Your task to perform on an android device: open chrome privacy settings Image 0: 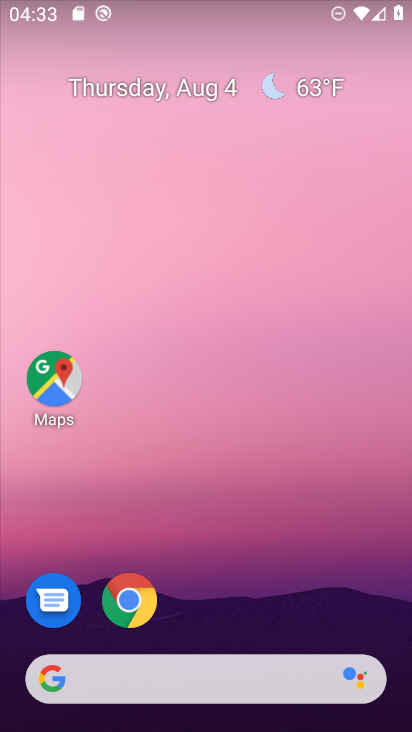
Step 0: drag from (284, 521) to (296, 83)
Your task to perform on an android device: open chrome privacy settings Image 1: 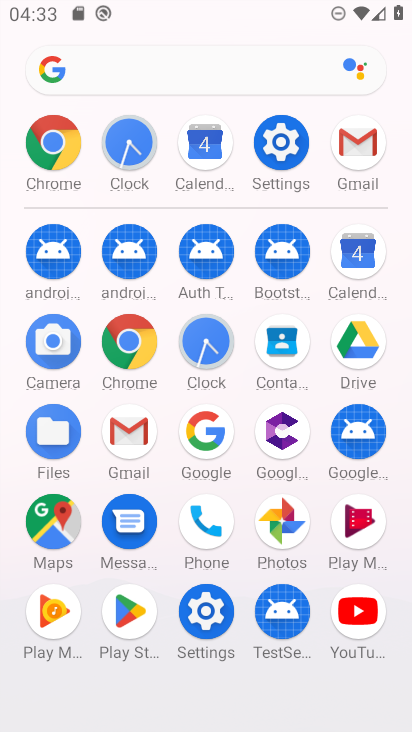
Step 1: click (126, 336)
Your task to perform on an android device: open chrome privacy settings Image 2: 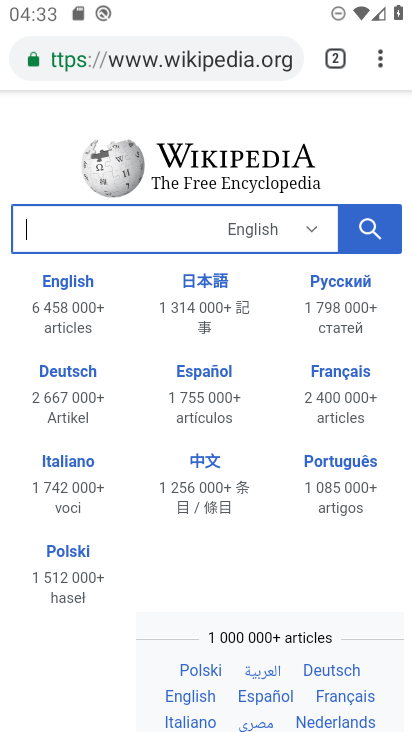
Step 2: drag from (389, 57) to (222, 638)
Your task to perform on an android device: open chrome privacy settings Image 3: 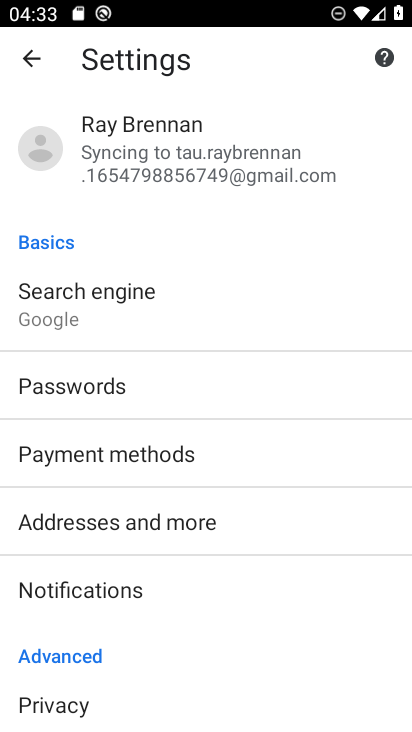
Step 3: drag from (255, 516) to (277, 180)
Your task to perform on an android device: open chrome privacy settings Image 4: 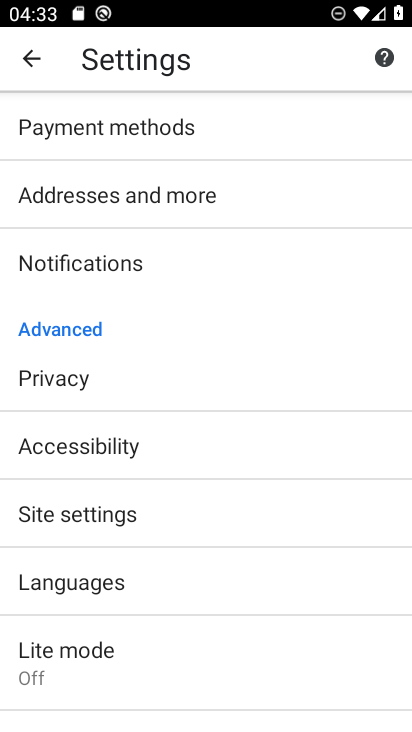
Step 4: click (88, 374)
Your task to perform on an android device: open chrome privacy settings Image 5: 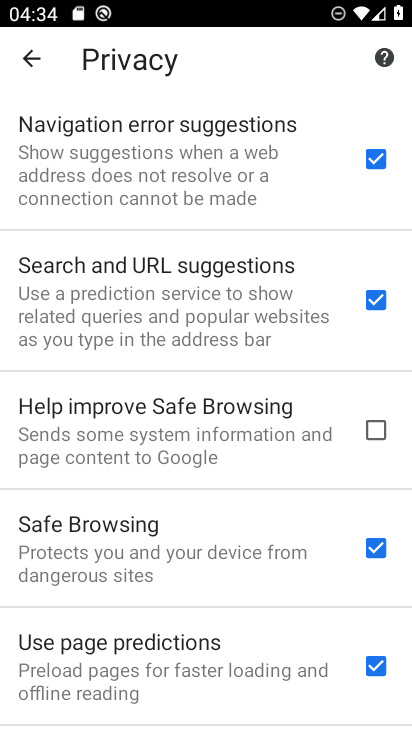
Step 5: task complete